Your task to perform on an android device: turn on priority inbox in the gmail app Image 0: 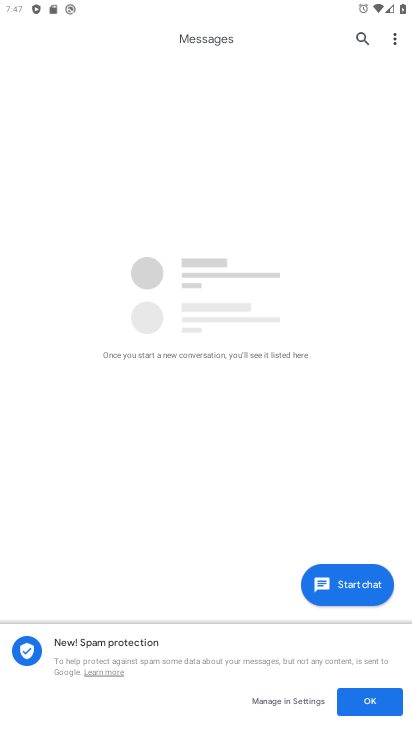
Step 0: press home button
Your task to perform on an android device: turn on priority inbox in the gmail app Image 1: 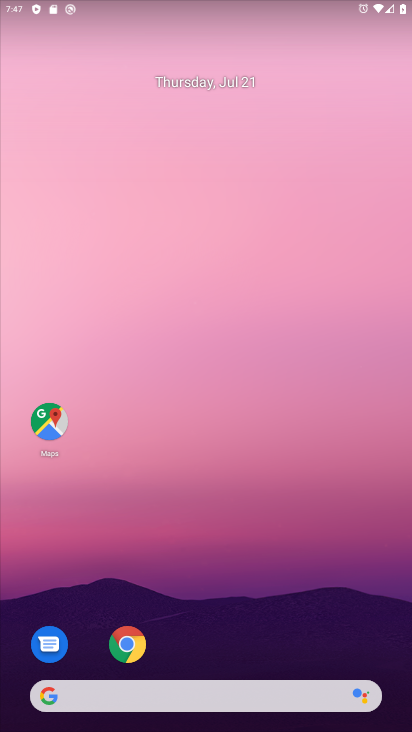
Step 1: drag from (358, 592) to (374, 221)
Your task to perform on an android device: turn on priority inbox in the gmail app Image 2: 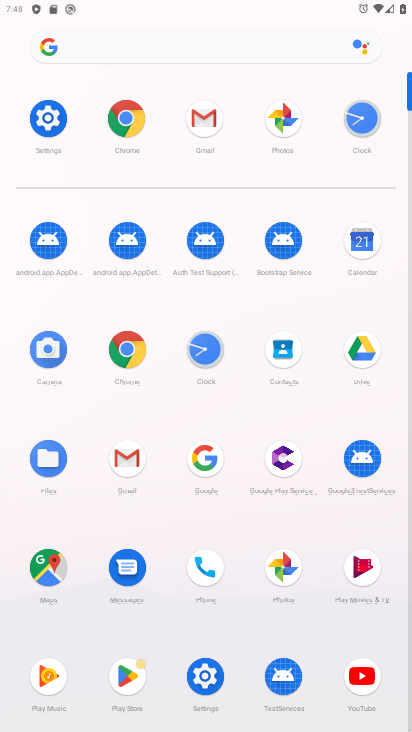
Step 2: click (130, 462)
Your task to perform on an android device: turn on priority inbox in the gmail app Image 3: 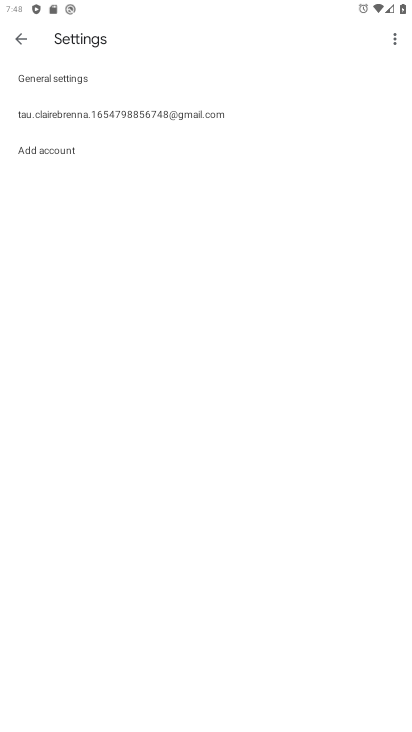
Step 3: click (152, 119)
Your task to perform on an android device: turn on priority inbox in the gmail app Image 4: 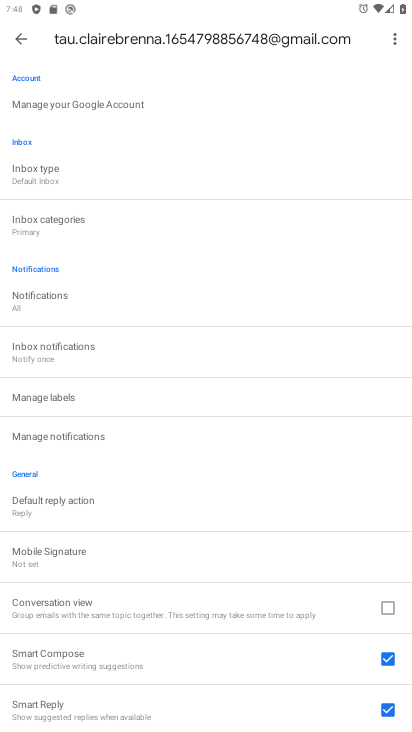
Step 4: click (94, 177)
Your task to perform on an android device: turn on priority inbox in the gmail app Image 5: 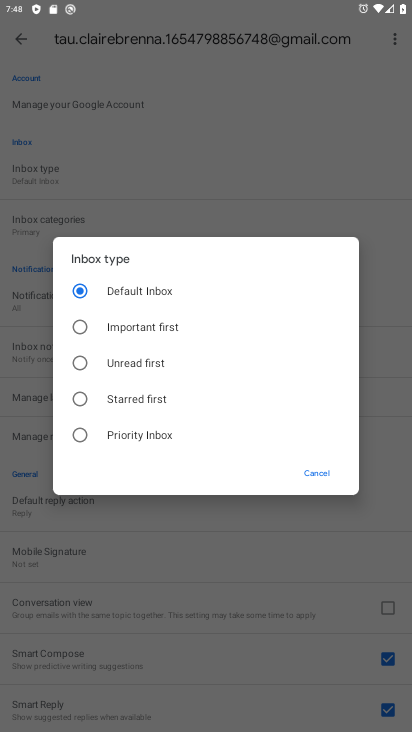
Step 5: click (79, 437)
Your task to perform on an android device: turn on priority inbox in the gmail app Image 6: 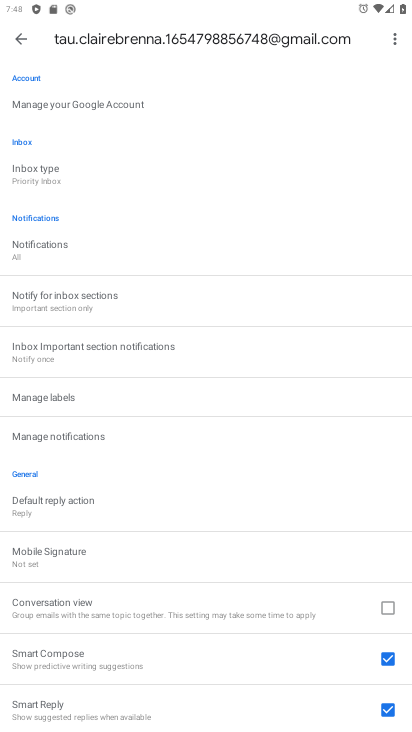
Step 6: task complete